Your task to perform on an android device: Open Google Maps Image 0: 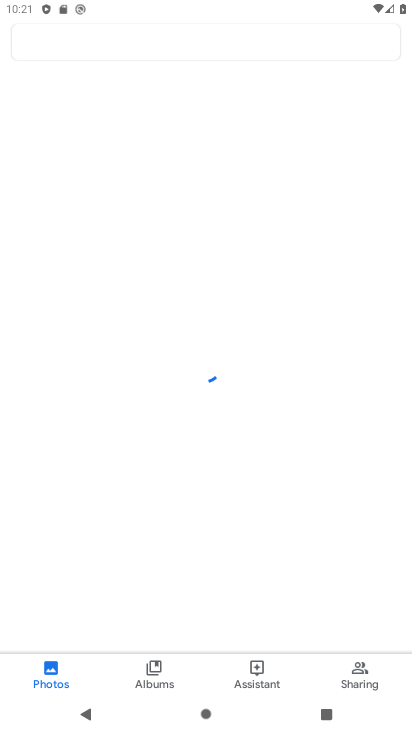
Step 0: press home button
Your task to perform on an android device: Open Google Maps Image 1: 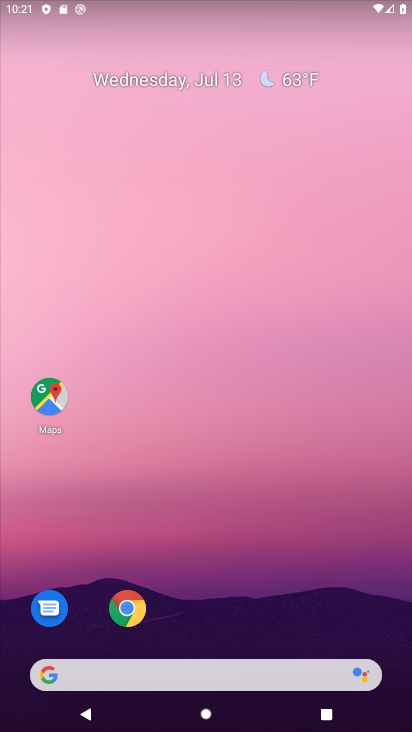
Step 1: drag from (284, 604) to (411, 270)
Your task to perform on an android device: Open Google Maps Image 2: 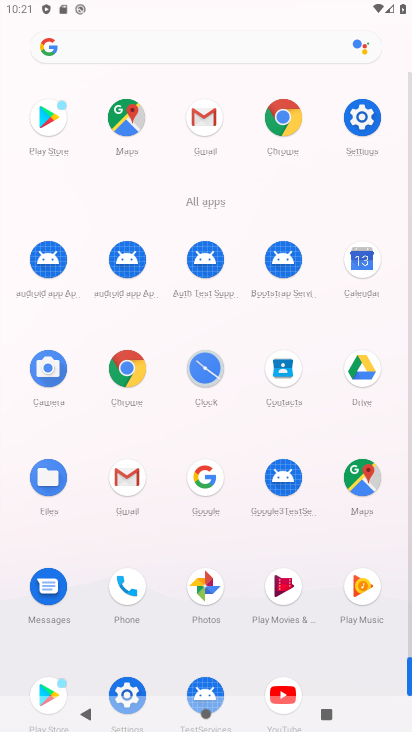
Step 2: click (366, 474)
Your task to perform on an android device: Open Google Maps Image 3: 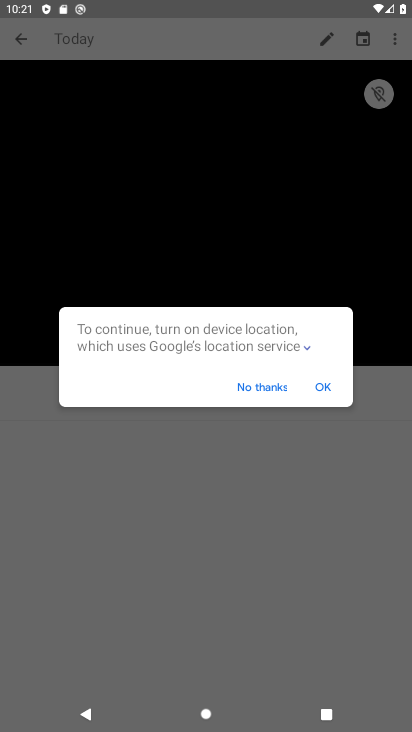
Step 3: click (321, 380)
Your task to perform on an android device: Open Google Maps Image 4: 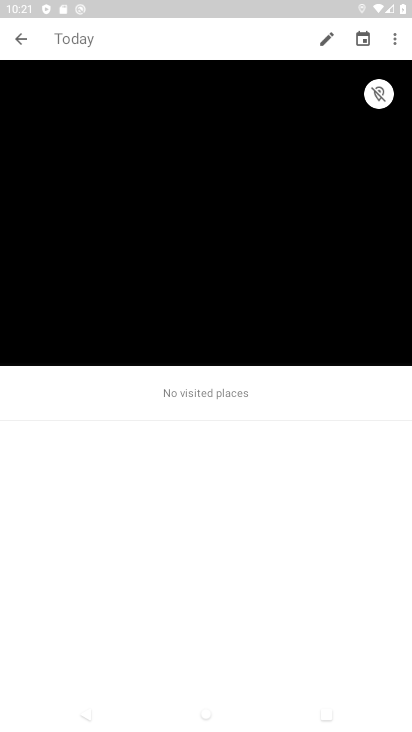
Step 4: click (19, 40)
Your task to perform on an android device: Open Google Maps Image 5: 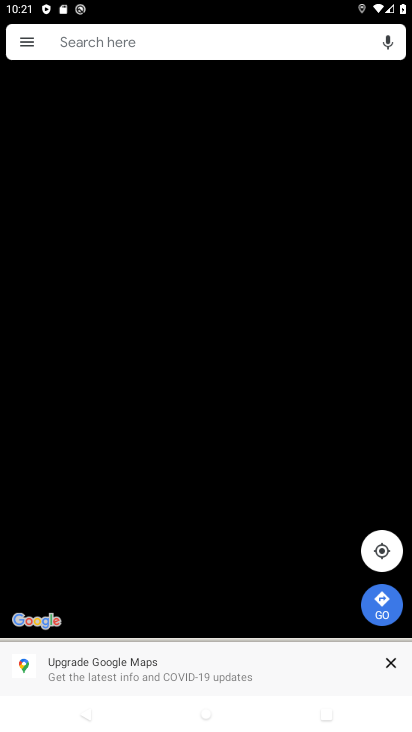
Step 5: task complete